Your task to perform on an android device: What's the weather? Image 0: 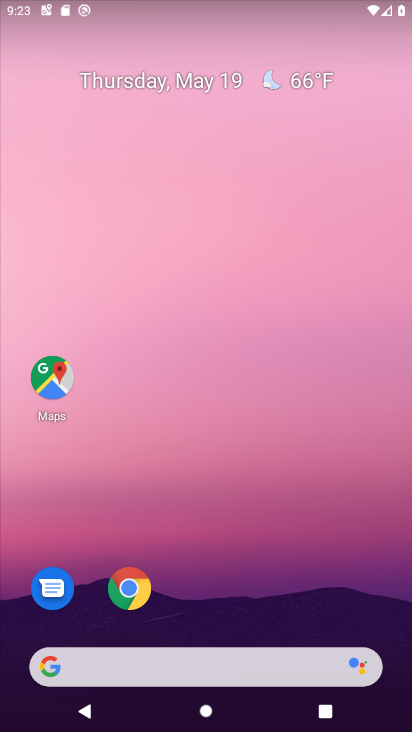
Step 0: click (273, 657)
Your task to perform on an android device: What's the weather? Image 1: 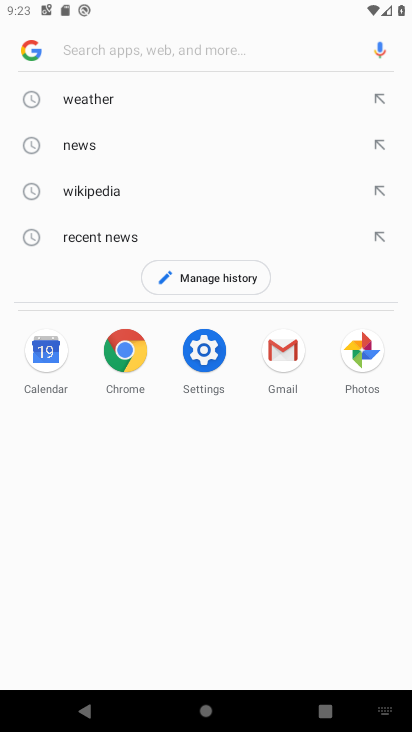
Step 1: click (221, 79)
Your task to perform on an android device: What's the weather? Image 2: 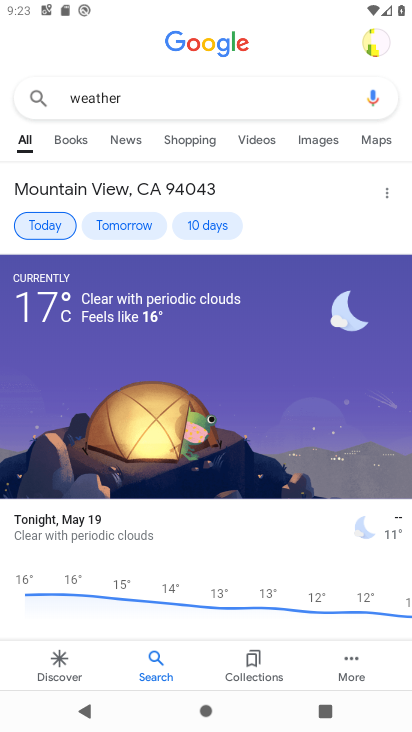
Step 2: task complete